Your task to perform on an android device: Do I have any events today? Image 0: 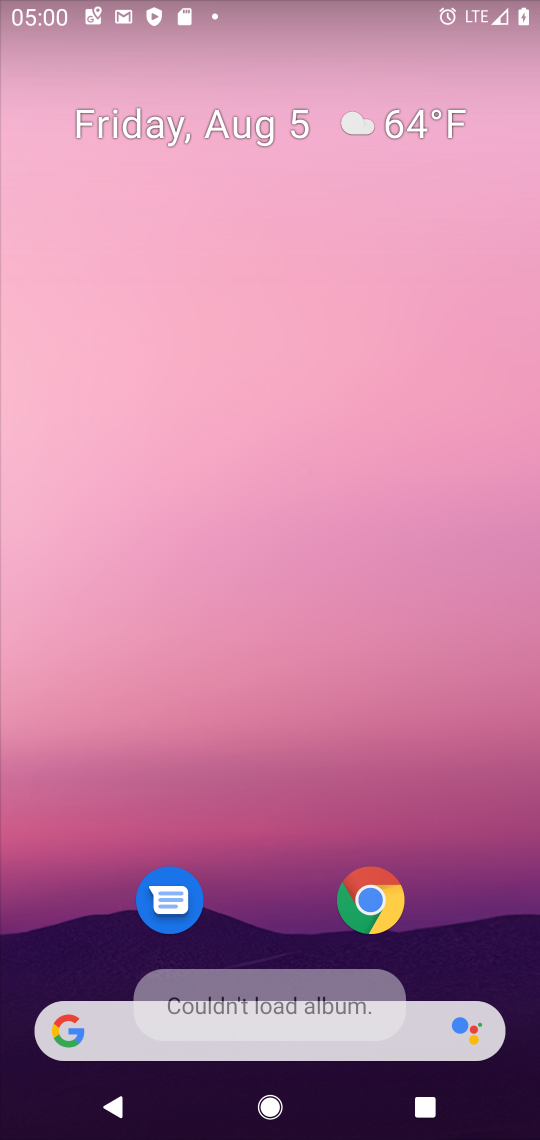
Step 0: drag from (255, 920) to (306, 11)
Your task to perform on an android device: Do I have any events today? Image 1: 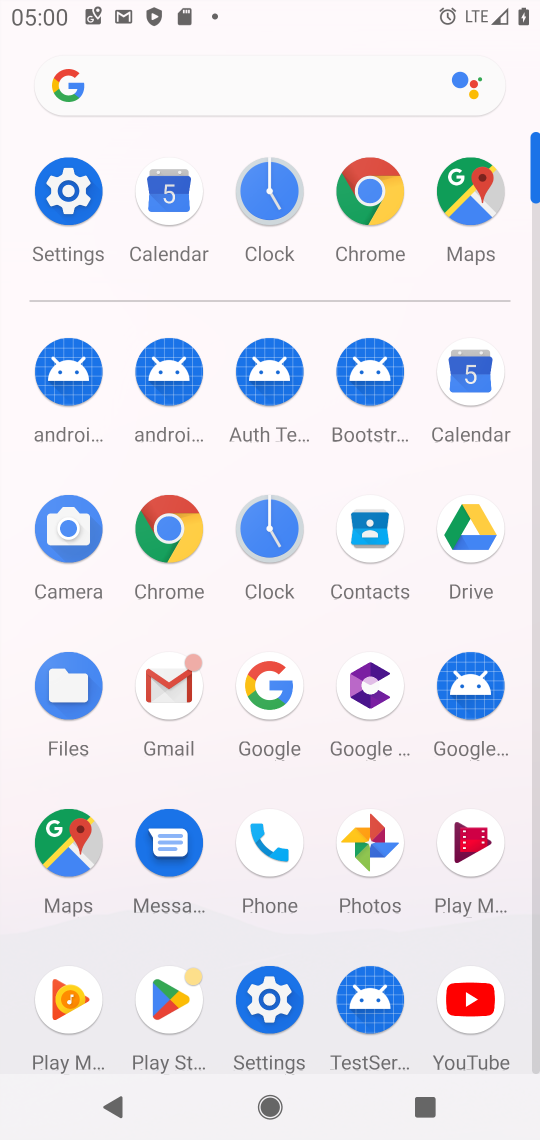
Step 1: click (462, 384)
Your task to perform on an android device: Do I have any events today? Image 2: 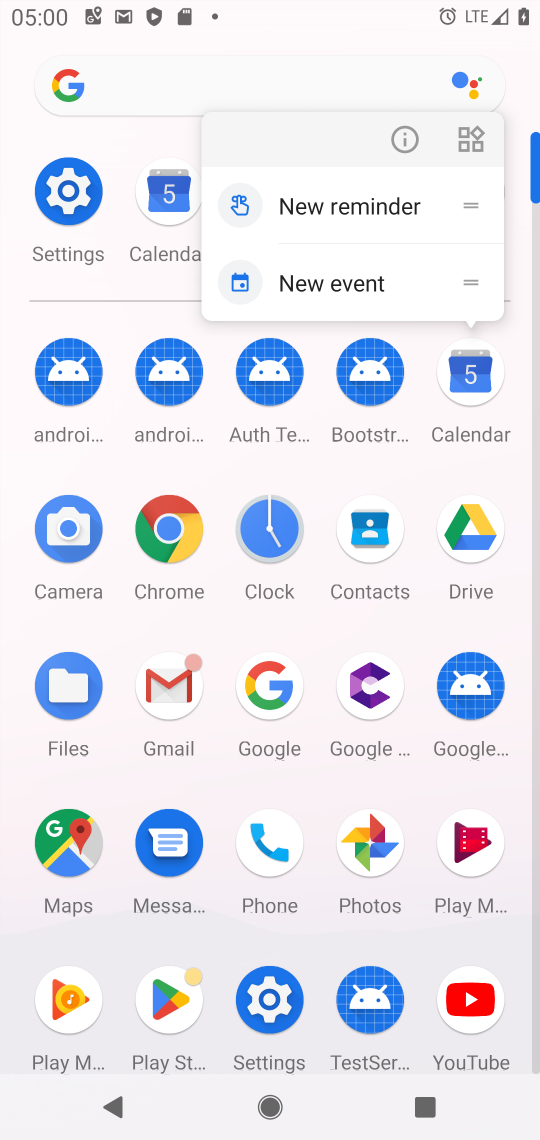
Step 2: click (472, 375)
Your task to perform on an android device: Do I have any events today? Image 3: 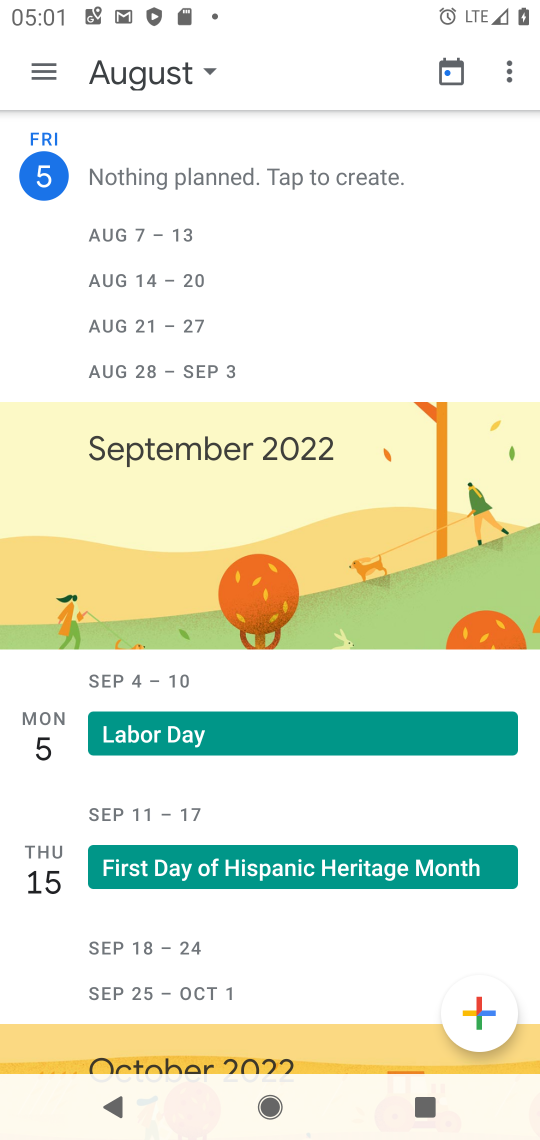
Step 3: task complete